Your task to perform on an android device: turn off wifi Image 0: 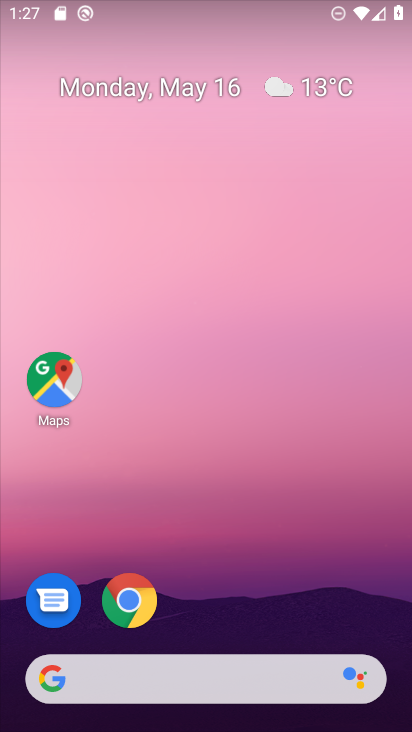
Step 0: drag from (221, 633) to (279, 91)
Your task to perform on an android device: turn off wifi Image 1: 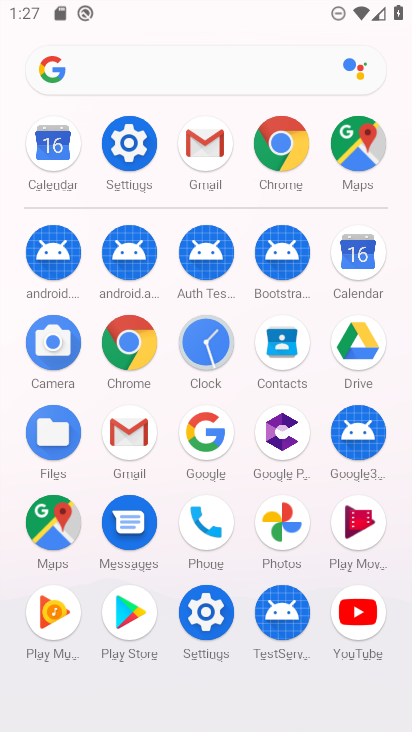
Step 1: click (128, 140)
Your task to perform on an android device: turn off wifi Image 2: 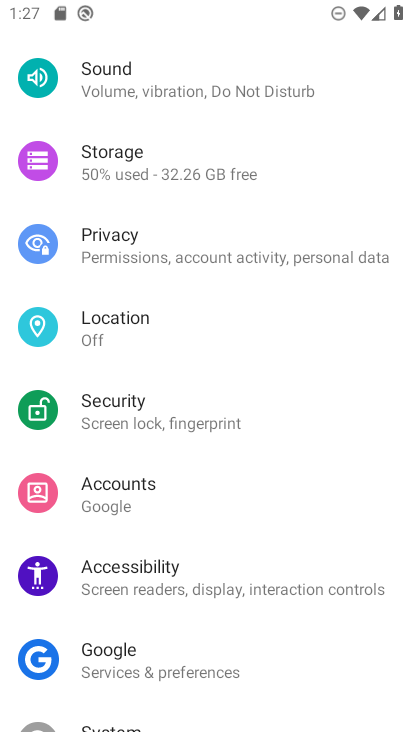
Step 2: drag from (188, 125) to (200, 630)
Your task to perform on an android device: turn off wifi Image 3: 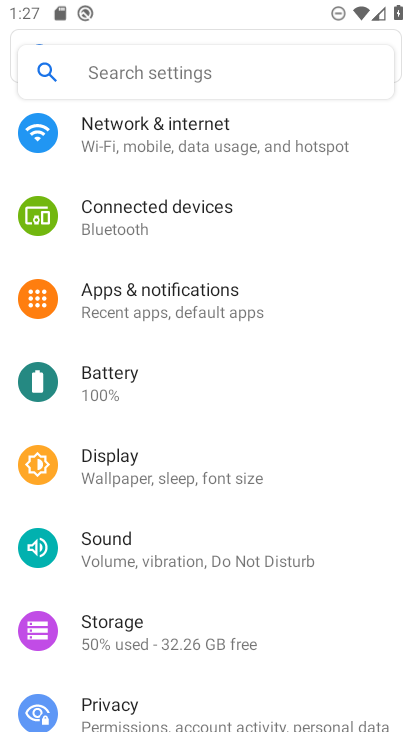
Step 3: drag from (202, 176) to (195, 615)
Your task to perform on an android device: turn off wifi Image 4: 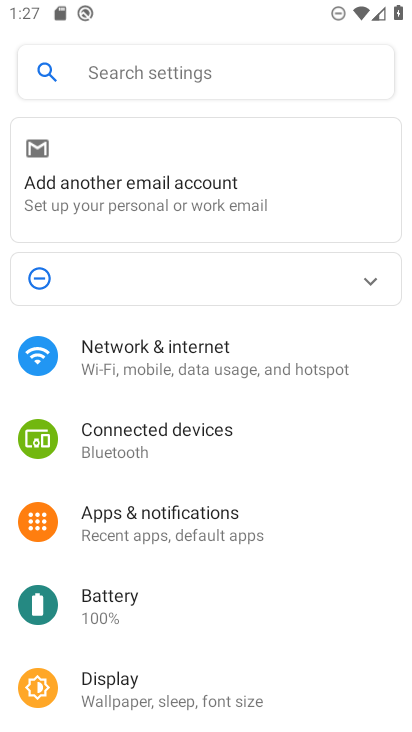
Step 4: click (245, 348)
Your task to perform on an android device: turn off wifi Image 5: 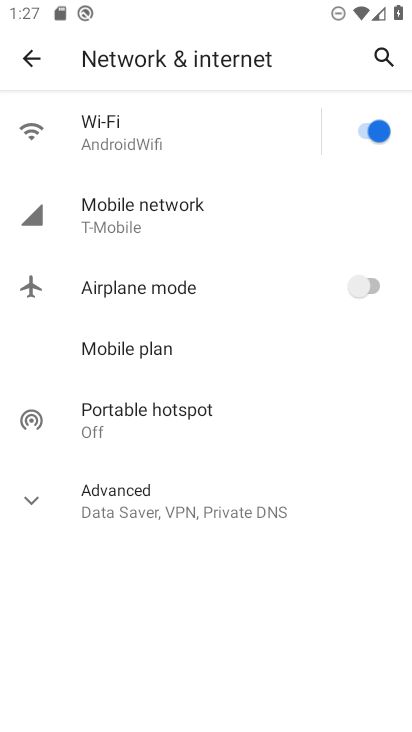
Step 5: click (199, 130)
Your task to perform on an android device: turn off wifi Image 6: 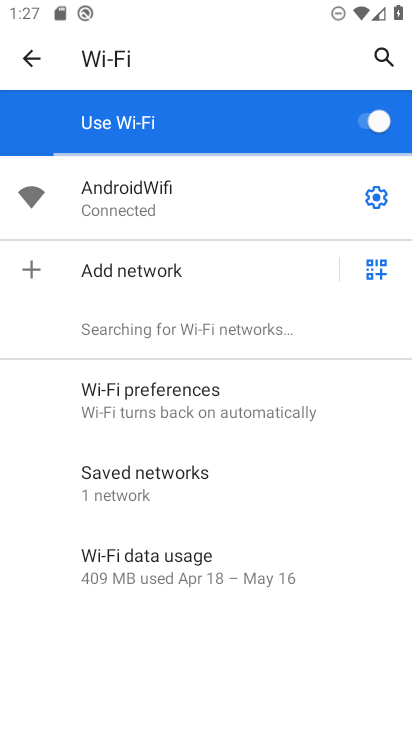
Step 6: click (366, 115)
Your task to perform on an android device: turn off wifi Image 7: 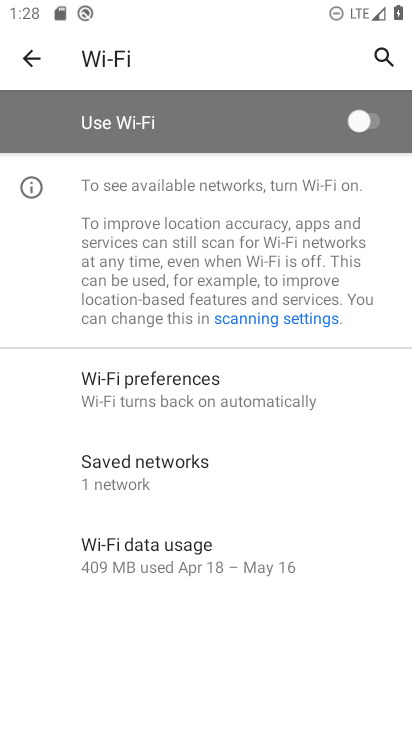
Step 7: task complete